Your task to perform on an android device: Do I have any events tomorrow? Image 0: 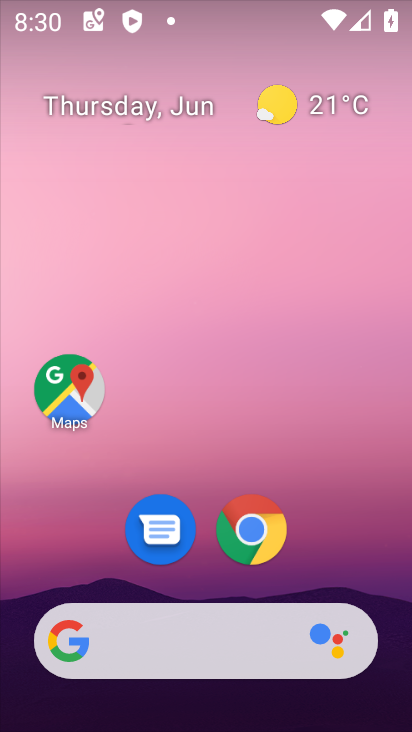
Step 0: drag from (324, 519) to (221, 197)
Your task to perform on an android device: Do I have any events tomorrow? Image 1: 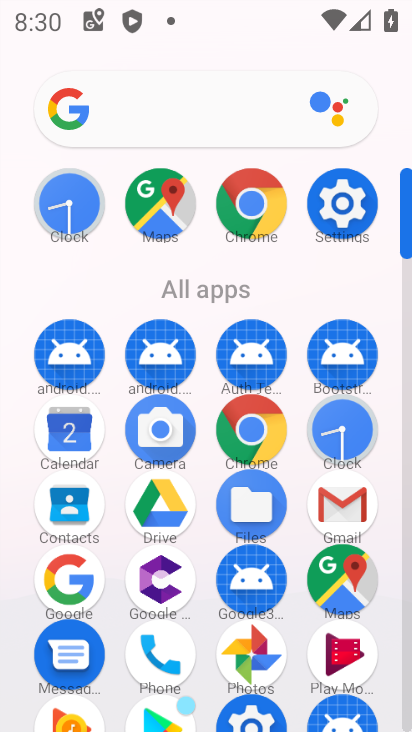
Step 1: click (65, 421)
Your task to perform on an android device: Do I have any events tomorrow? Image 2: 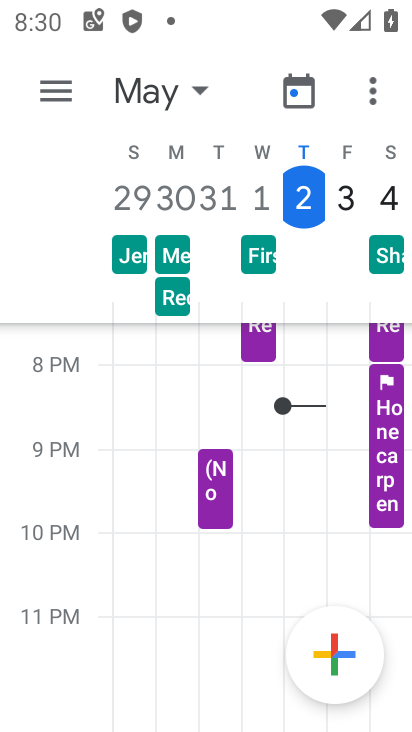
Step 2: click (195, 86)
Your task to perform on an android device: Do I have any events tomorrow? Image 3: 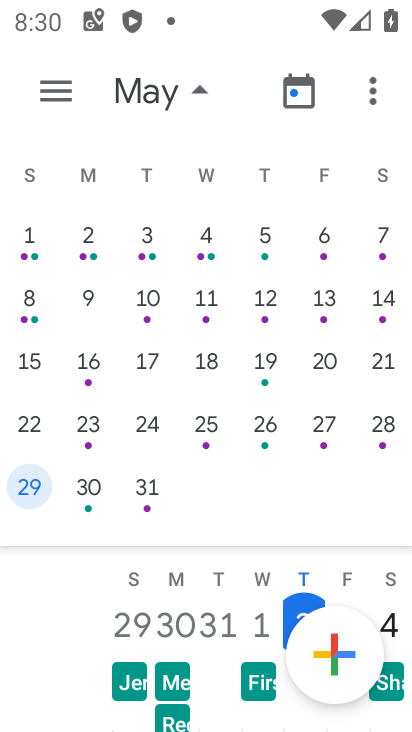
Step 3: drag from (343, 305) to (23, 273)
Your task to perform on an android device: Do I have any events tomorrow? Image 4: 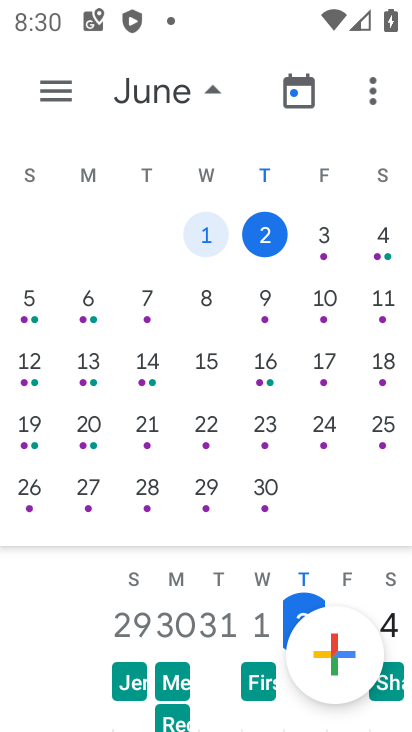
Step 4: click (257, 226)
Your task to perform on an android device: Do I have any events tomorrow? Image 5: 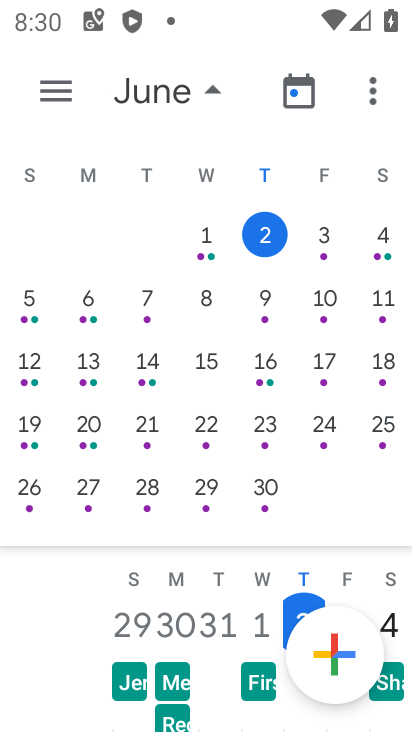
Step 5: click (263, 236)
Your task to perform on an android device: Do I have any events tomorrow? Image 6: 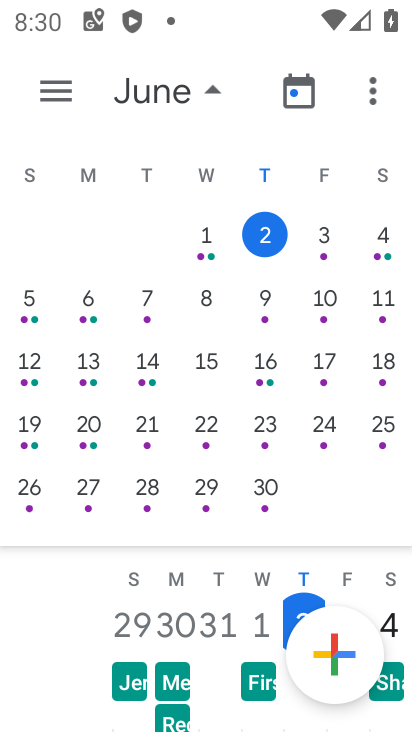
Step 6: drag from (228, 536) to (210, 236)
Your task to perform on an android device: Do I have any events tomorrow? Image 7: 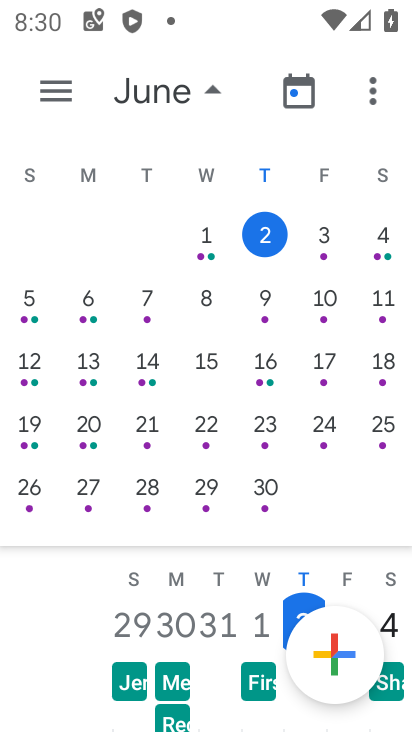
Step 7: drag from (84, 619) to (75, 241)
Your task to perform on an android device: Do I have any events tomorrow? Image 8: 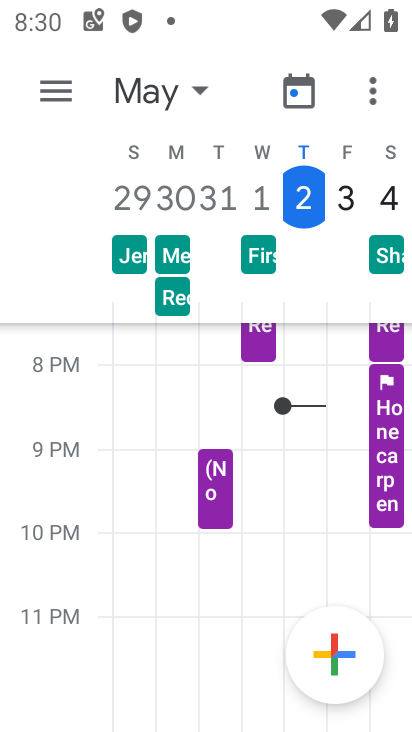
Step 8: click (300, 209)
Your task to perform on an android device: Do I have any events tomorrow? Image 9: 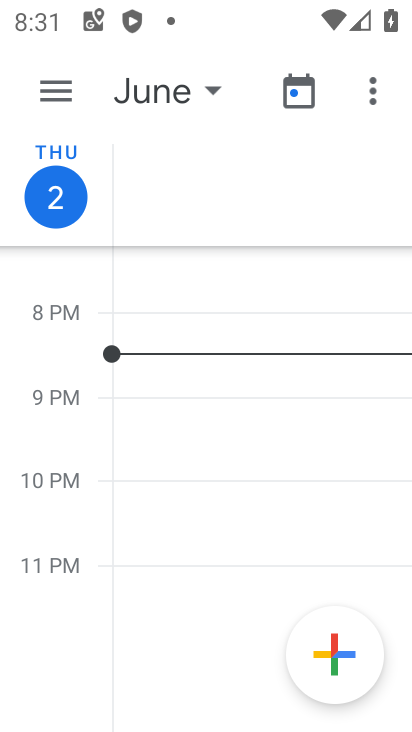
Step 9: task complete